Your task to perform on an android device: see creations saved in the google photos Image 0: 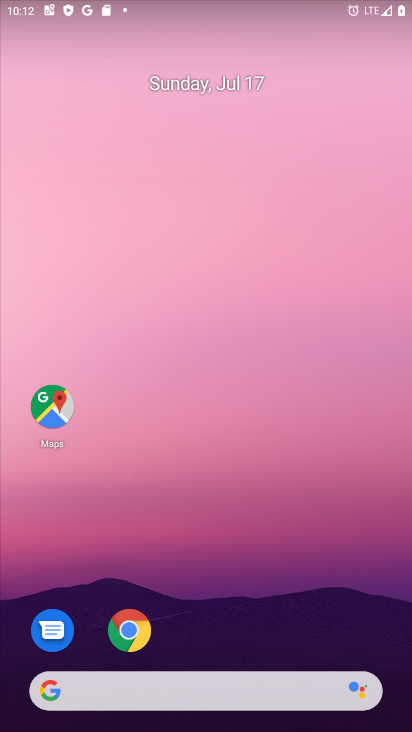
Step 0: press home button
Your task to perform on an android device: see creations saved in the google photos Image 1: 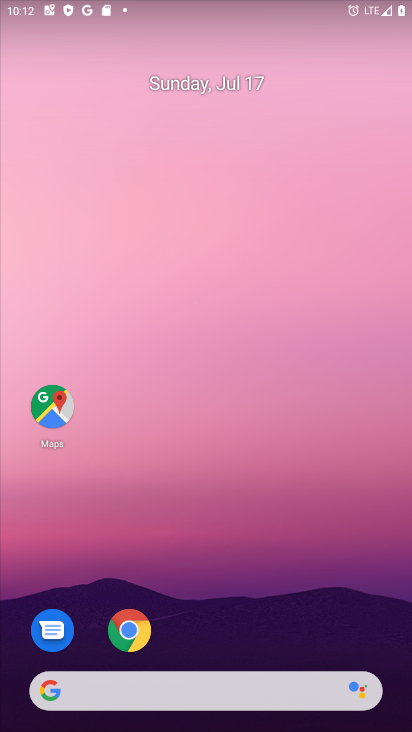
Step 1: drag from (210, 646) to (259, 10)
Your task to perform on an android device: see creations saved in the google photos Image 2: 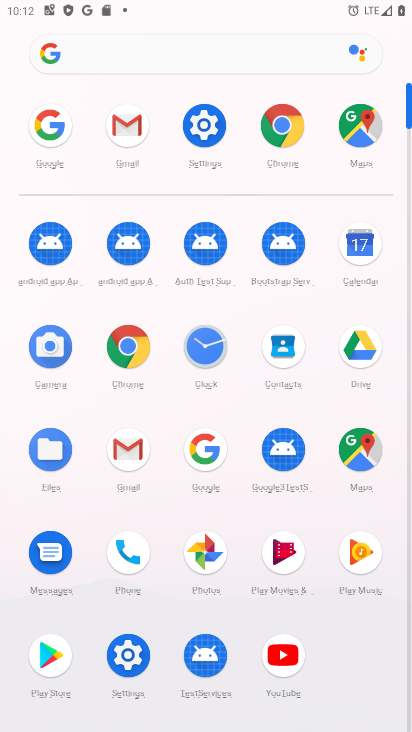
Step 2: click (199, 548)
Your task to perform on an android device: see creations saved in the google photos Image 3: 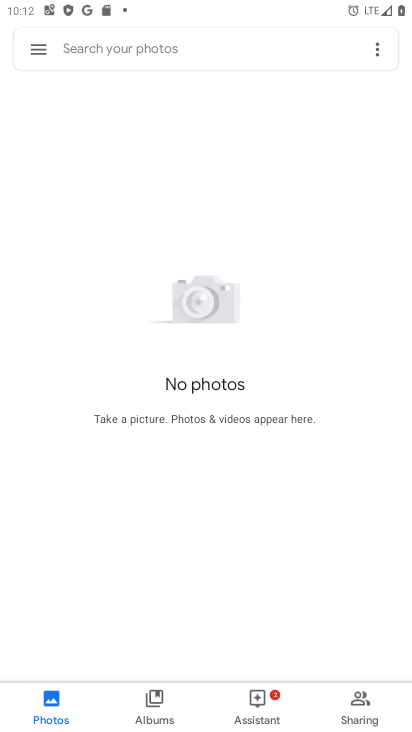
Step 3: click (39, 46)
Your task to perform on an android device: see creations saved in the google photos Image 4: 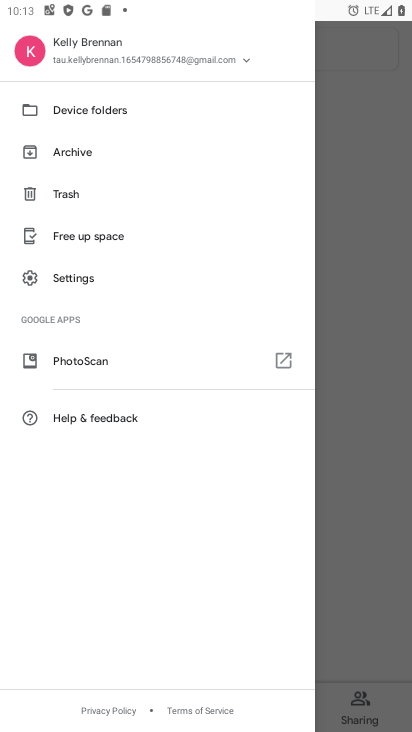
Step 4: click (378, 269)
Your task to perform on an android device: see creations saved in the google photos Image 5: 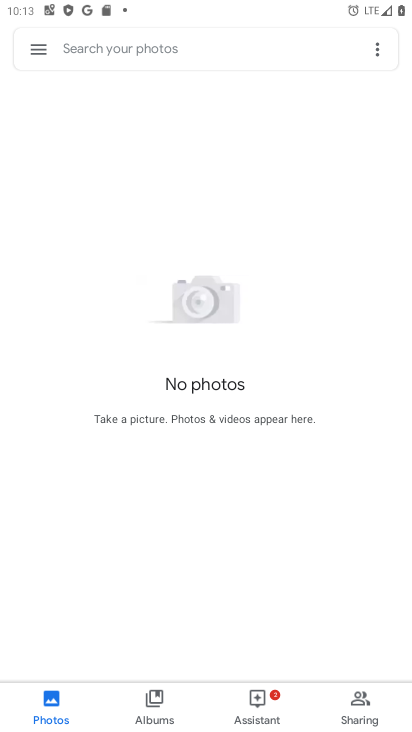
Step 5: click (119, 46)
Your task to perform on an android device: see creations saved in the google photos Image 6: 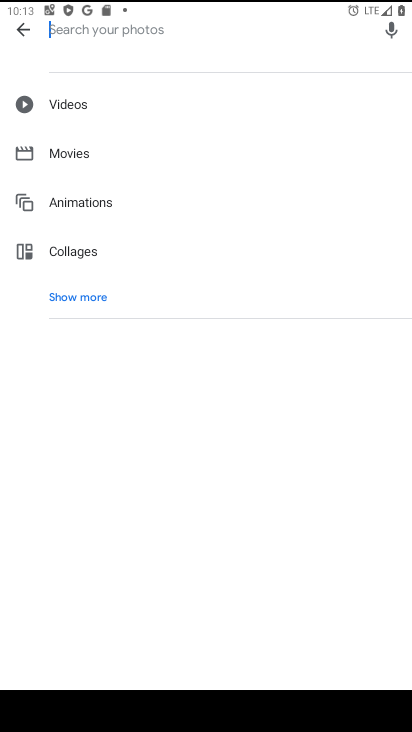
Step 6: click (57, 294)
Your task to perform on an android device: see creations saved in the google photos Image 7: 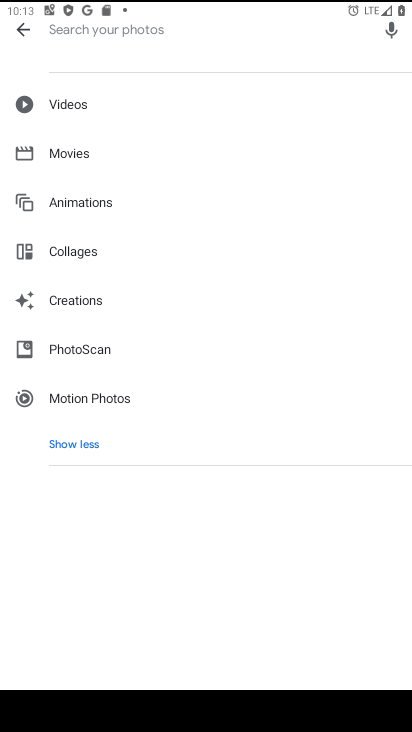
Step 7: click (104, 300)
Your task to perform on an android device: see creations saved in the google photos Image 8: 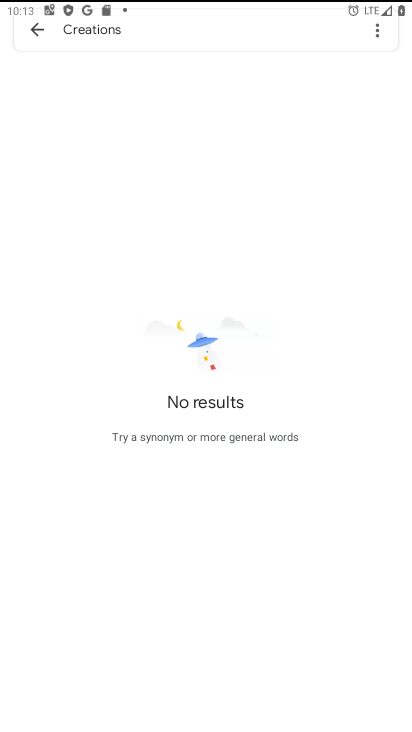
Step 8: task complete